Your task to perform on an android device: clear all cookies in the chrome app Image 0: 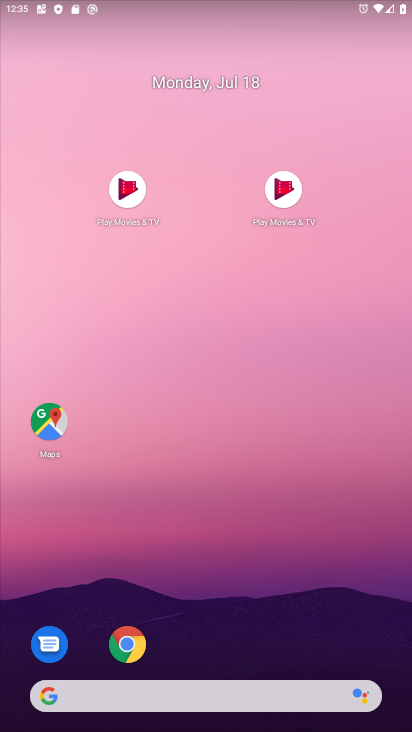
Step 0: drag from (356, 575) to (327, 152)
Your task to perform on an android device: clear all cookies in the chrome app Image 1: 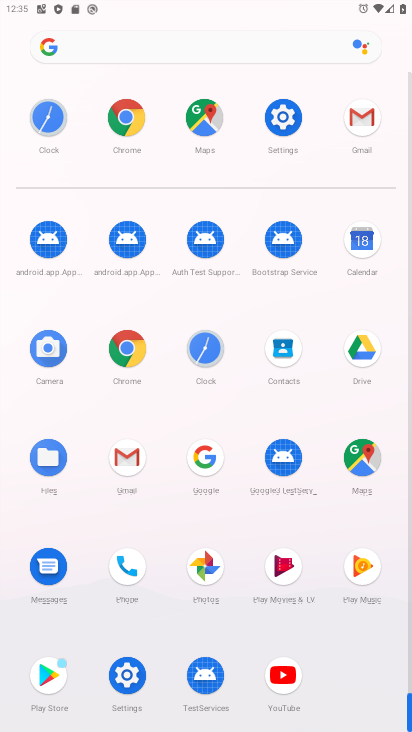
Step 1: click (132, 344)
Your task to perform on an android device: clear all cookies in the chrome app Image 2: 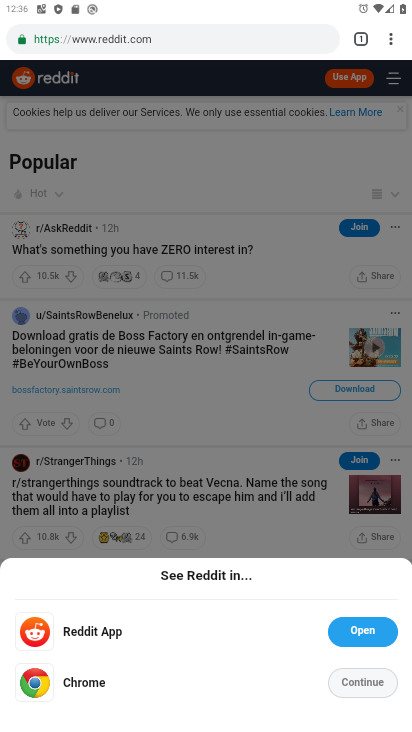
Step 2: drag from (393, 45) to (254, 215)
Your task to perform on an android device: clear all cookies in the chrome app Image 3: 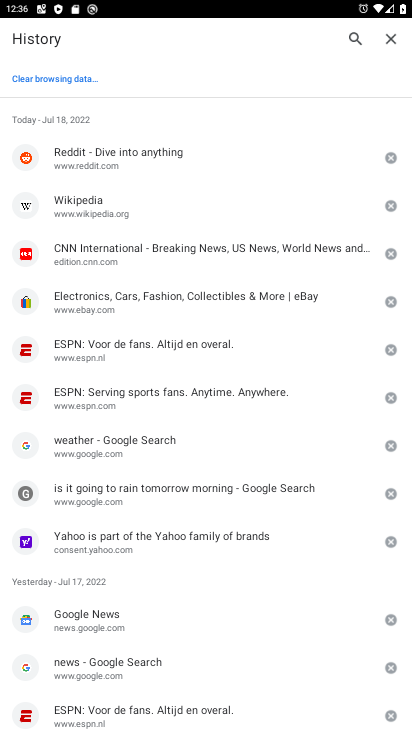
Step 3: click (71, 79)
Your task to perform on an android device: clear all cookies in the chrome app Image 4: 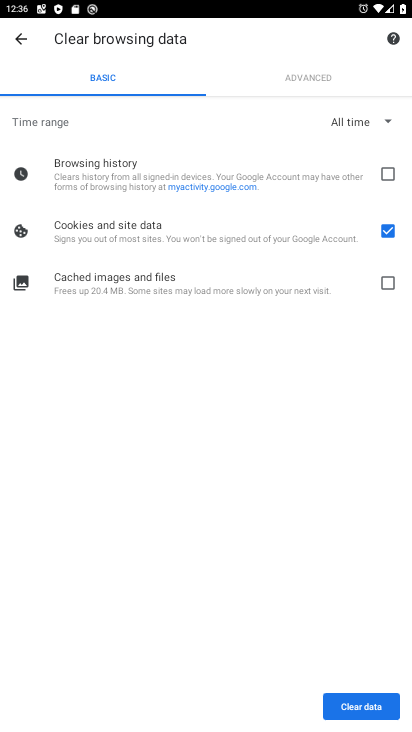
Step 4: click (388, 704)
Your task to perform on an android device: clear all cookies in the chrome app Image 5: 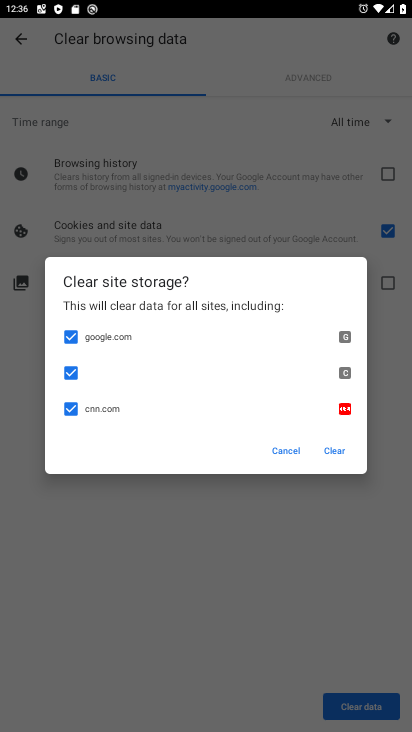
Step 5: click (333, 451)
Your task to perform on an android device: clear all cookies in the chrome app Image 6: 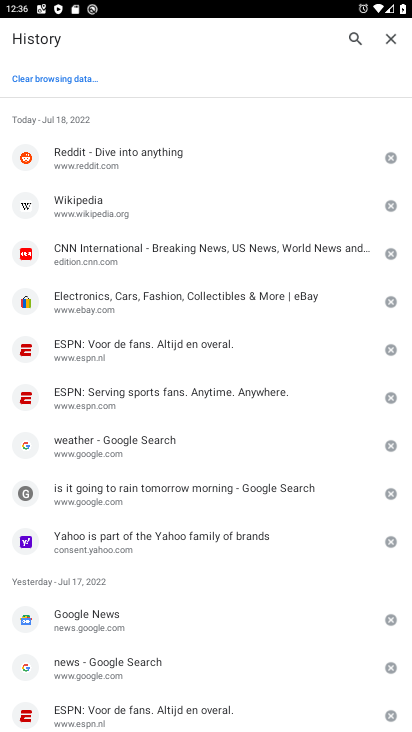
Step 6: task complete